Your task to perform on an android device: remove spam from my inbox in the gmail app Image 0: 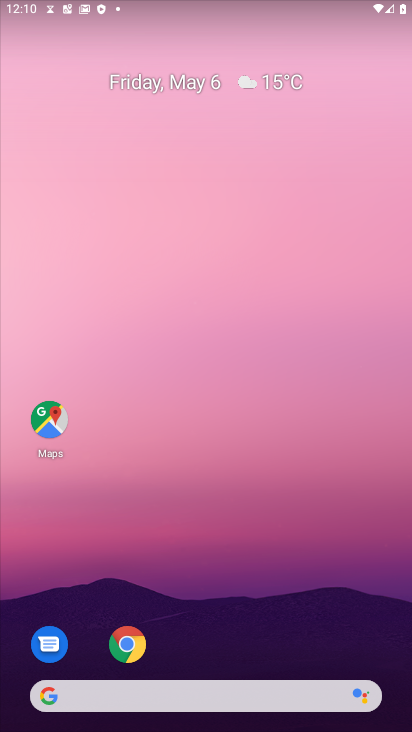
Step 0: drag from (267, 546) to (216, 16)
Your task to perform on an android device: remove spam from my inbox in the gmail app Image 1: 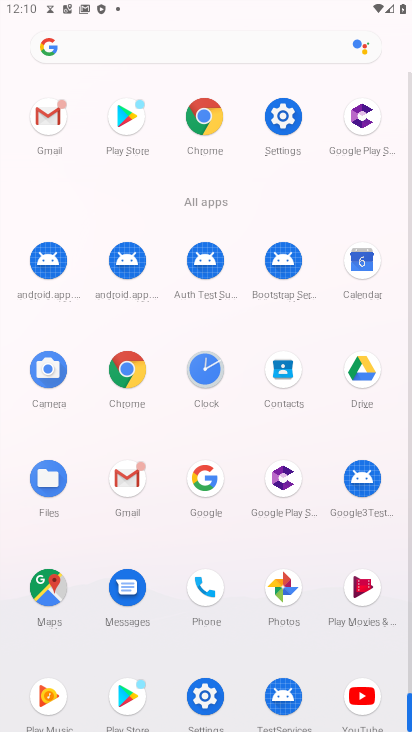
Step 1: drag from (9, 608) to (16, 257)
Your task to perform on an android device: remove spam from my inbox in the gmail app Image 2: 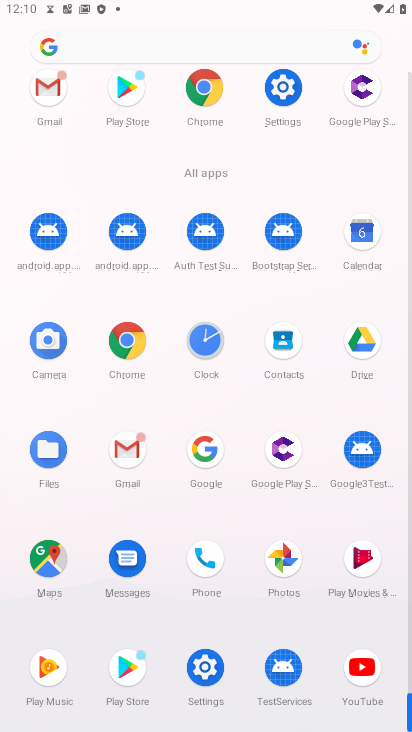
Step 2: click (125, 445)
Your task to perform on an android device: remove spam from my inbox in the gmail app Image 3: 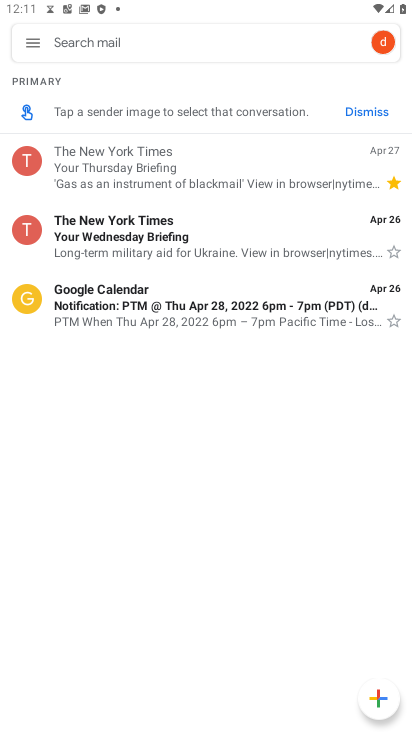
Step 3: click (39, 33)
Your task to perform on an android device: remove spam from my inbox in the gmail app Image 4: 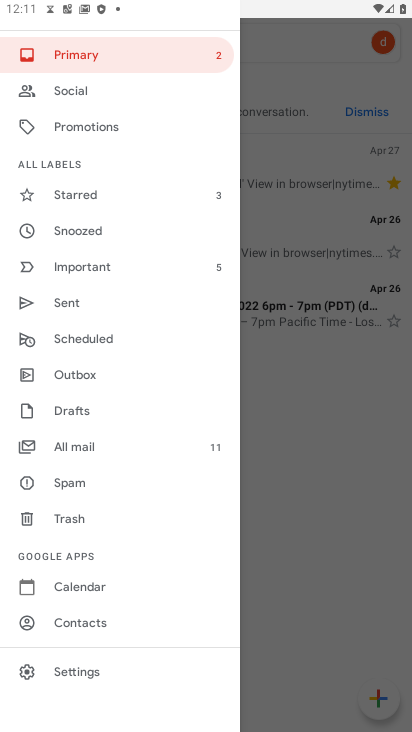
Step 4: drag from (148, 598) to (159, 100)
Your task to perform on an android device: remove spam from my inbox in the gmail app Image 5: 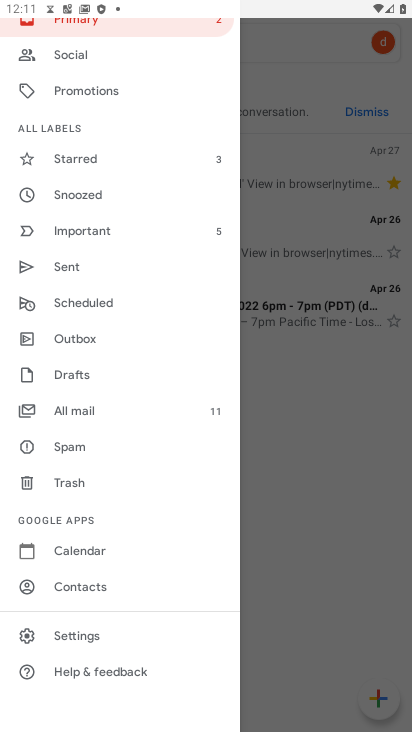
Step 5: click (83, 438)
Your task to perform on an android device: remove spam from my inbox in the gmail app Image 6: 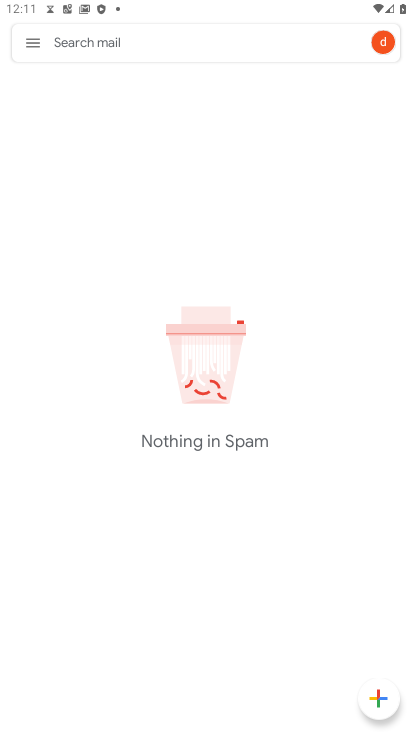
Step 6: click (31, 35)
Your task to perform on an android device: remove spam from my inbox in the gmail app Image 7: 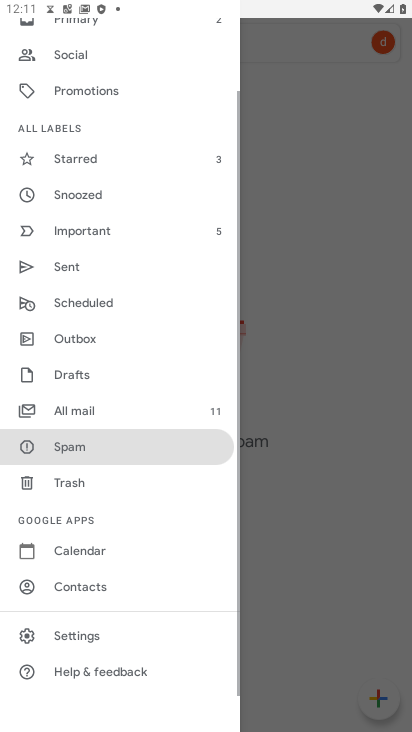
Step 7: drag from (175, 579) to (144, 185)
Your task to perform on an android device: remove spam from my inbox in the gmail app Image 8: 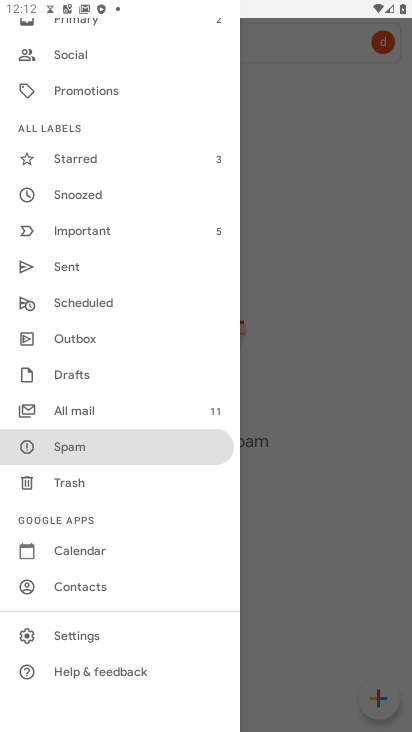
Step 8: click (108, 444)
Your task to perform on an android device: remove spam from my inbox in the gmail app Image 9: 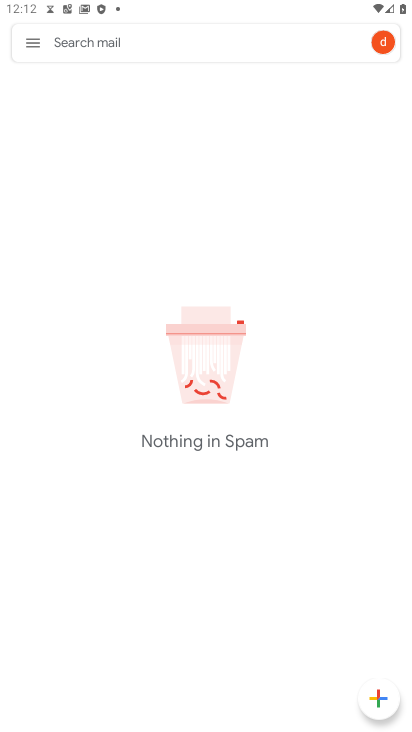
Step 9: task complete